Your task to perform on an android device: change the clock display to show seconds Image 0: 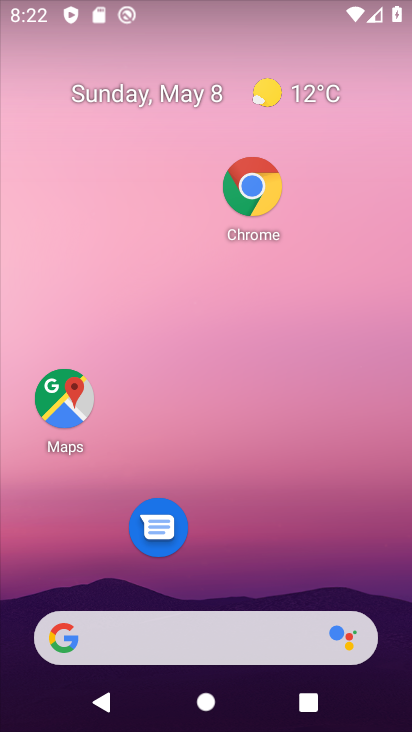
Step 0: drag from (343, 566) to (280, 231)
Your task to perform on an android device: change the clock display to show seconds Image 1: 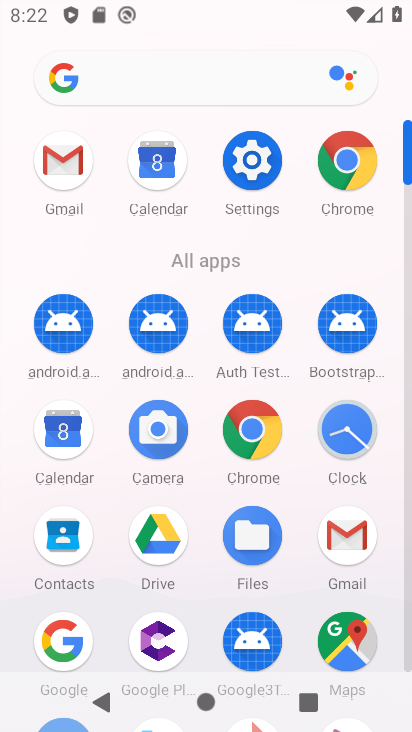
Step 1: click (352, 419)
Your task to perform on an android device: change the clock display to show seconds Image 2: 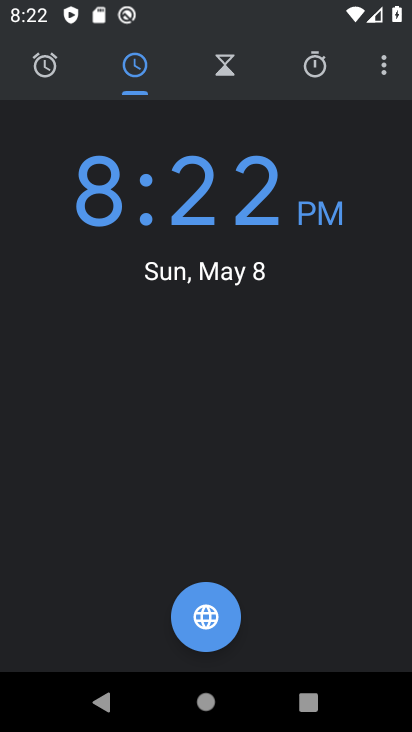
Step 2: click (391, 62)
Your task to perform on an android device: change the clock display to show seconds Image 3: 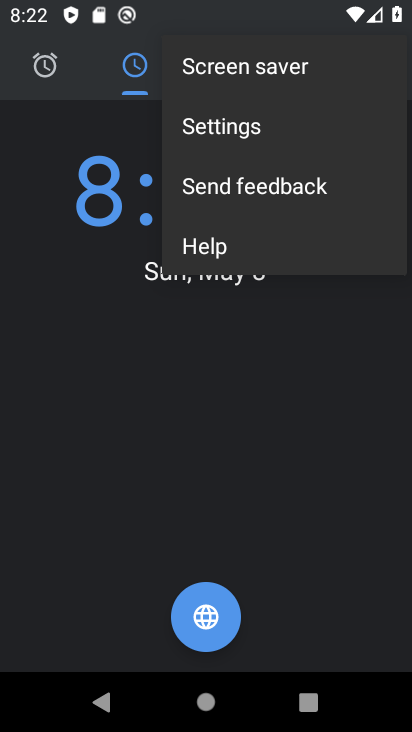
Step 3: click (226, 116)
Your task to perform on an android device: change the clock display to show seconds Image 4: 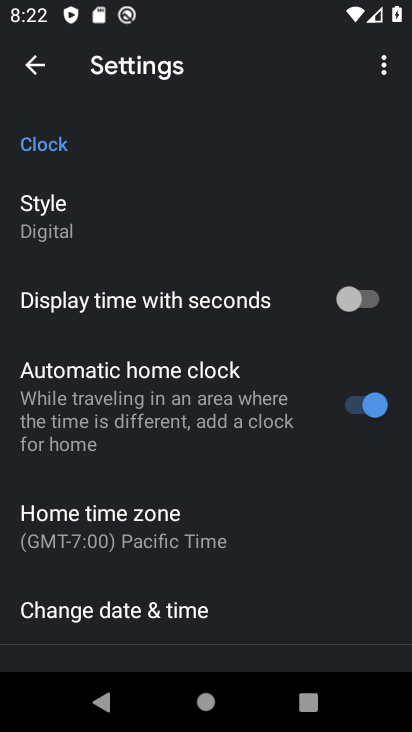
Step 4: click (363, 298)
Your task to perform on an android device: change the clock display to show seconds Image 5: 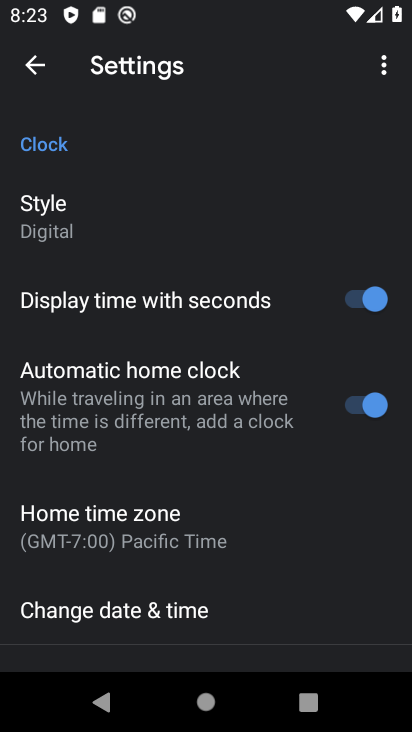
Step 5: task complete